Your task to perform on an android device: change the clock style Image 0: 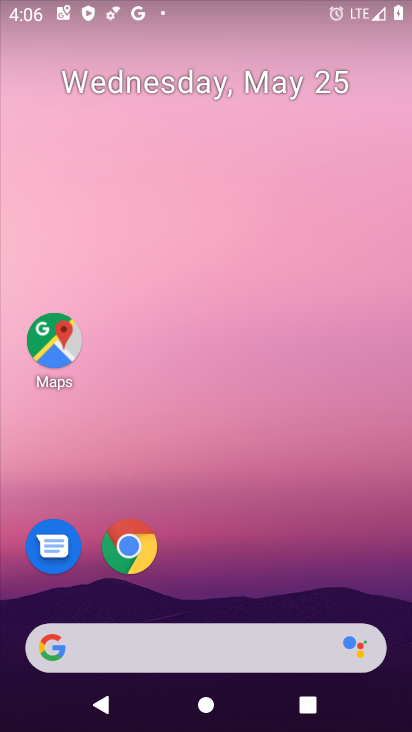
Step 0: drag from (248, 575) to (238, 10)
Your task to perform on an android device: change the clock style Image 1: 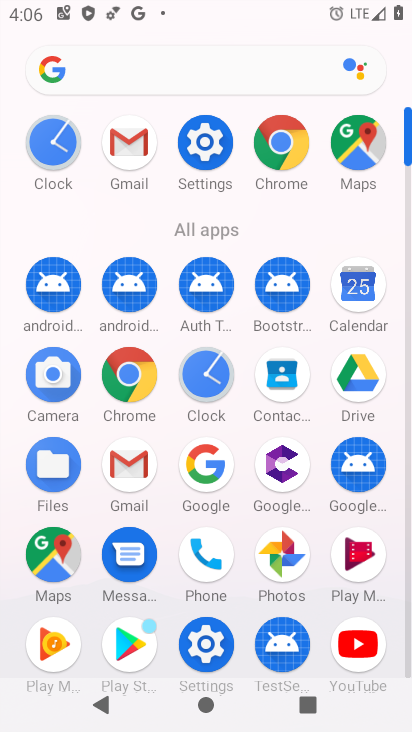
Step 1: click (197, 368)
Your task to perform on an android device: change the clock style Image 2: 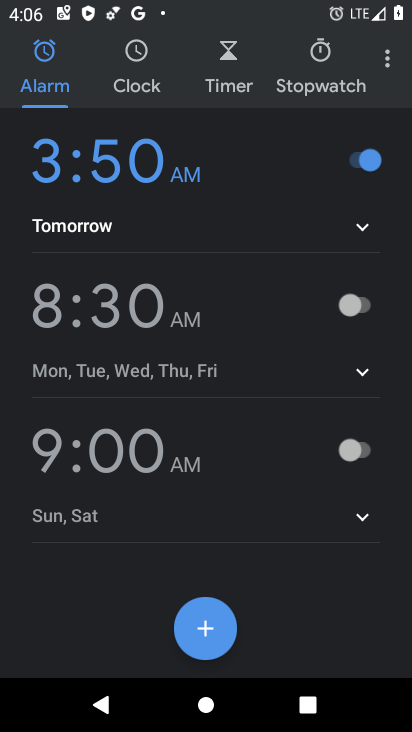
Step 2: click (377, 69)
Your task to perform on an android device: change the clock style Image 3: 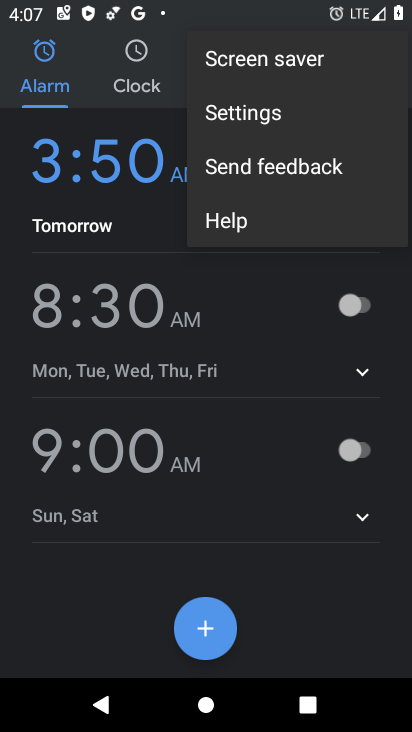
Step 3: click (266, 122)
Your task to perform on an android device: change the clock style Image 4: 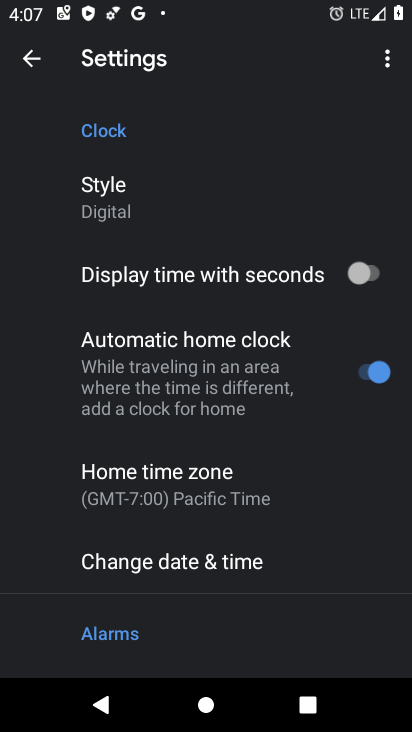
Step 4: click (123, 209)
Your task to perform on an android device: change the clock style Image 5: 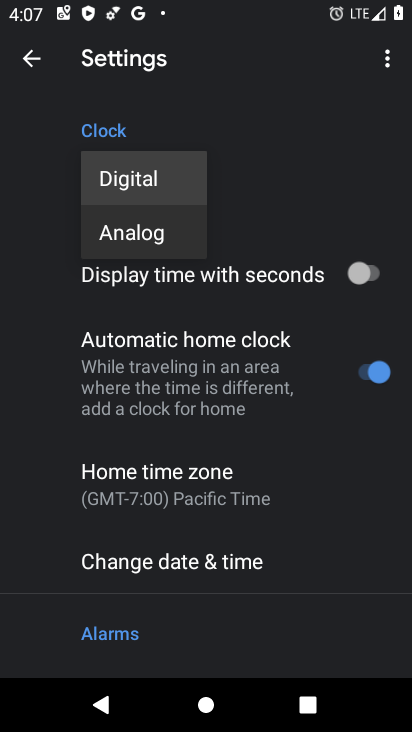
Step 5: click (150, 234)
Your task to perform on an android device: change the clock style Image 6: 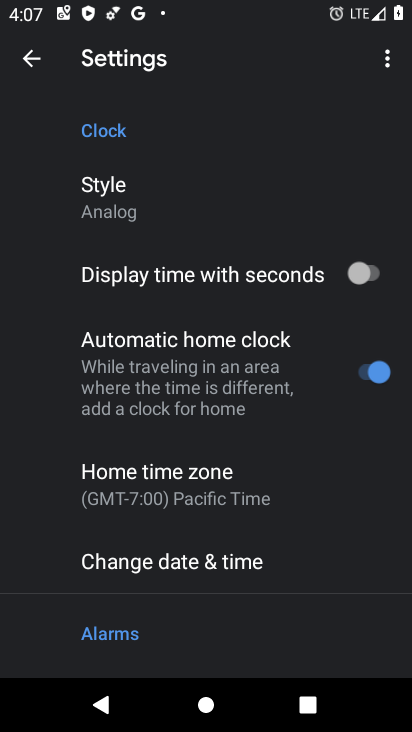
Step 6: task complete